Your task to perform on an android device: Open Google Chrome Image 0: 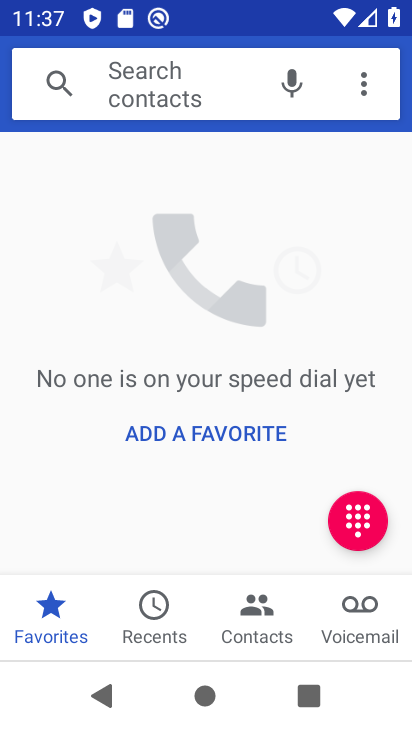
Step 0: press home button
Your task to perform on an android device: Open Google Chrome Image 1: 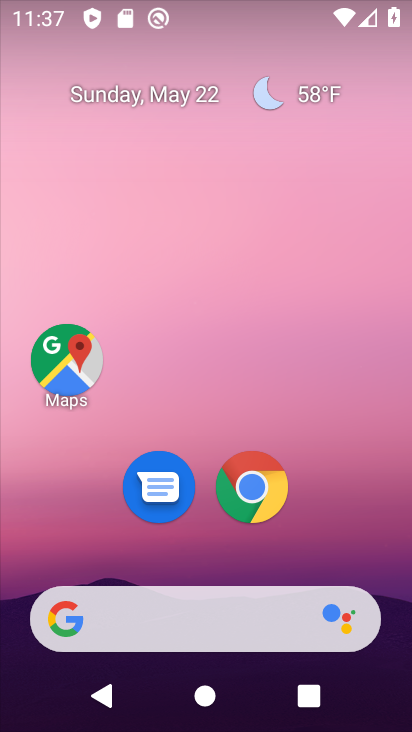
Step 1: click (255, 501)
Your task to perform on an android device: Open Google Chrome Image 2: 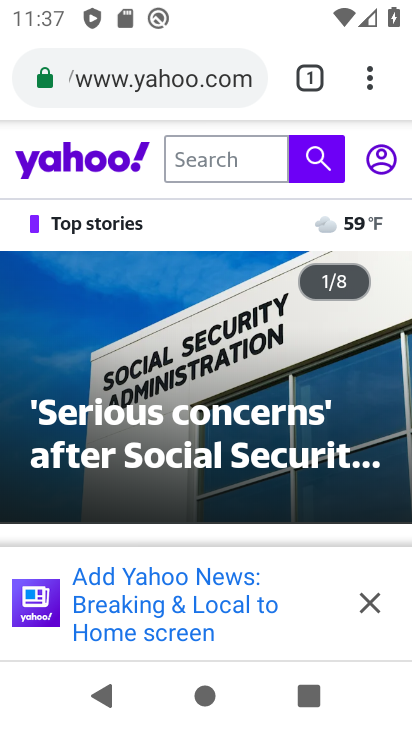
Step 2: task complete